Your task to perform on an android device: delete a single message in the gmail app Image 0: 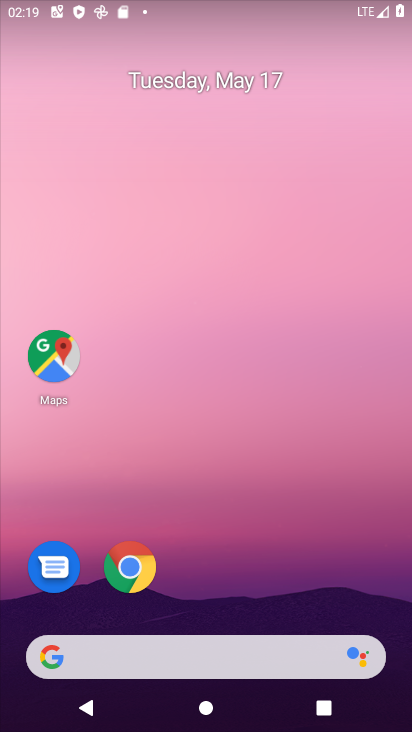
Step 0: drag from (396, 637) to (269, 120)
Your task to perform on an android device: delete a single message in the gmail app Image 1: 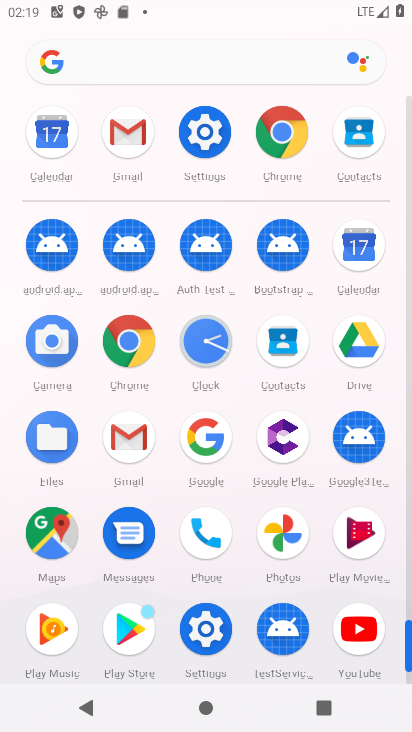
Step 1: click (126, 431)
Your task to perform on an android device: delete a single message in the gmail app Image 2: 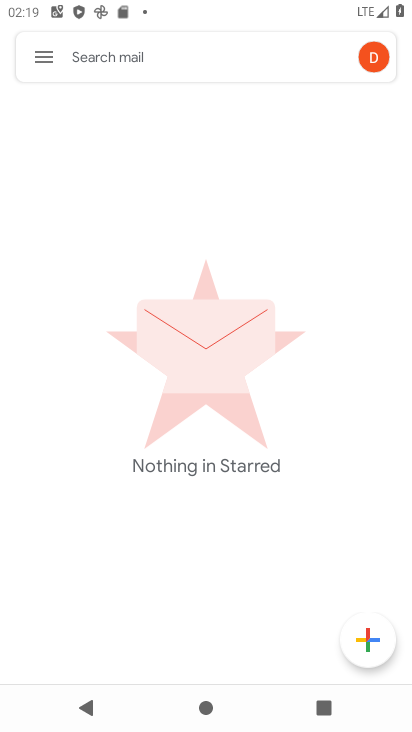
Step 2: click (38, 58)
Your task to perform on an android device: delete a single message in the gmail app Image 3: 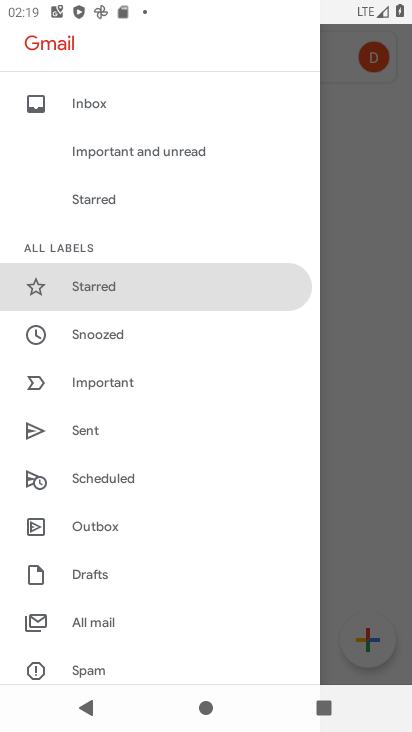
Step 3: drag from (217, 587) to (239, 349)
Your task to perform on an android device: delete a single message in the gmail app Image 4: 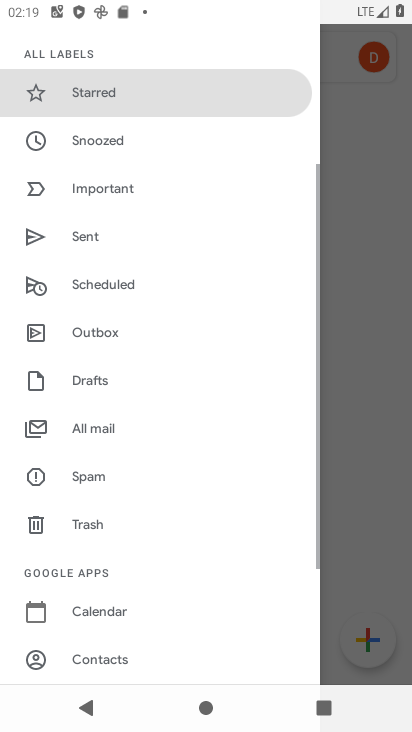
Step 4: click (239, 349)
Your task to perform on an android device: delete a single message in the gmail app Image 5: 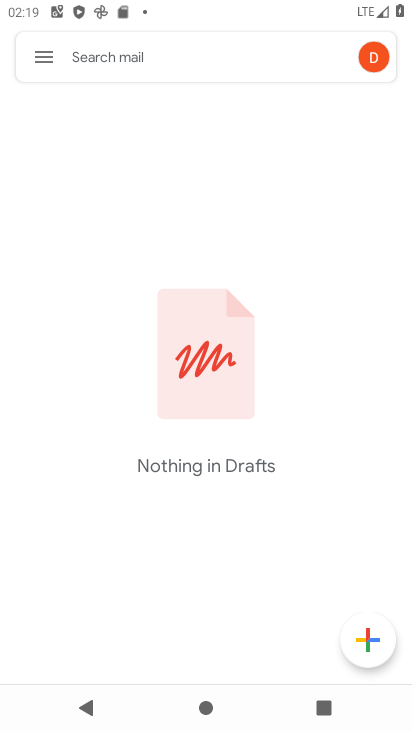
Step 5: click (38, 56)
Your task to perform on an android device: delete a single message in the gmail app Image 6: 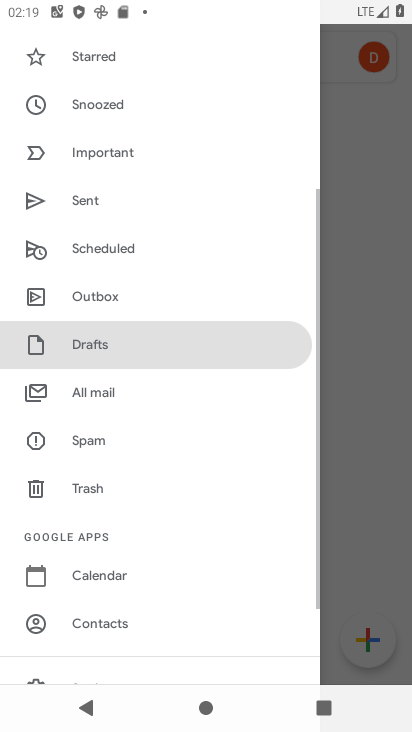
Step 6: click (100, 387)
Your task to perform on an android device: delete a single message in the gmail app Image 7: 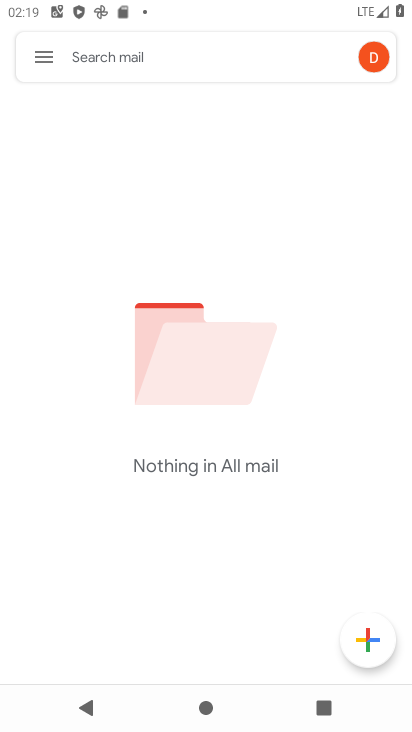
Step 7: task complete